Your task to perform on an android device: set the timer Image 0: 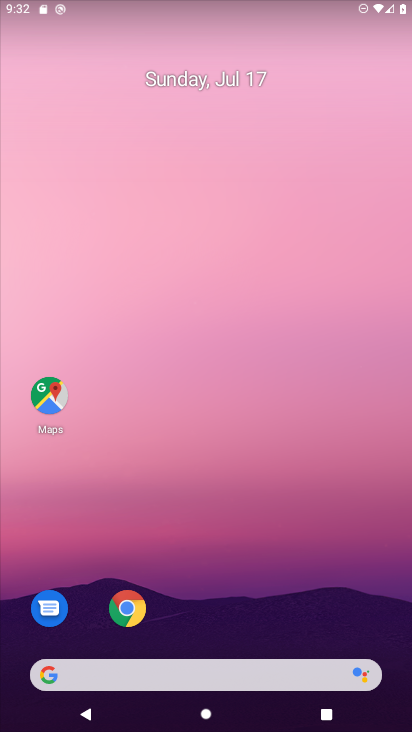
Step 0: drag from (180, 678) to (190, 137)
Your task to perform on an android device: set the timer Image 1: 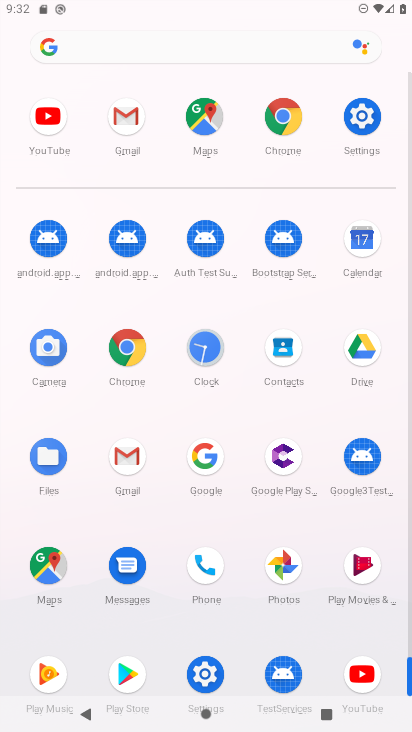
Step 1: click (206, 346)
Your task to perform on an android device: set the timer Image 2: 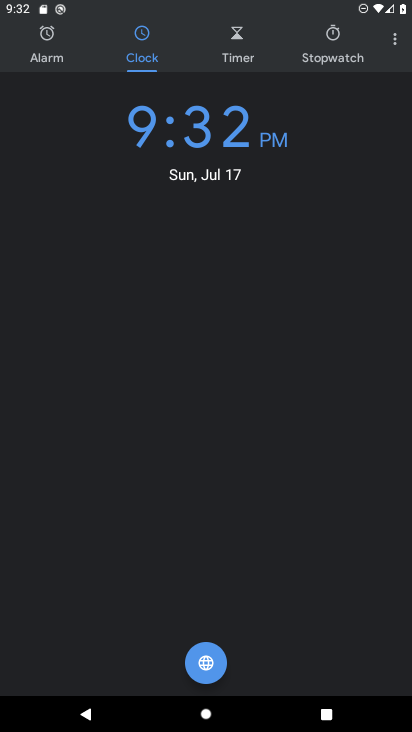
Step 2: click (240, 44)
Your task to perform on an android device: set the timer Image 3: 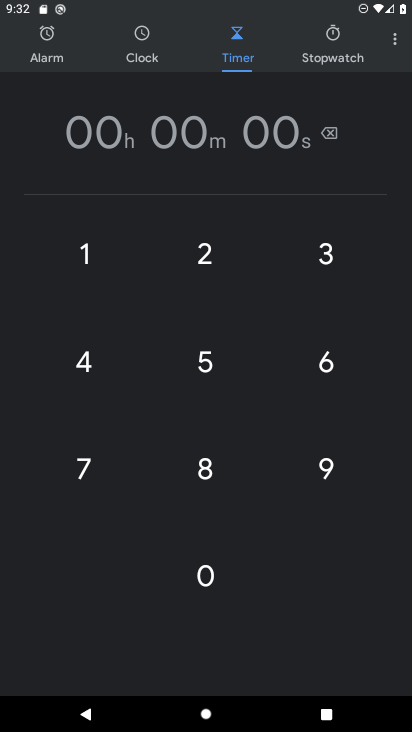
Step 3: type "1357"
Your task to perform on an android device: set the timer Image 4: 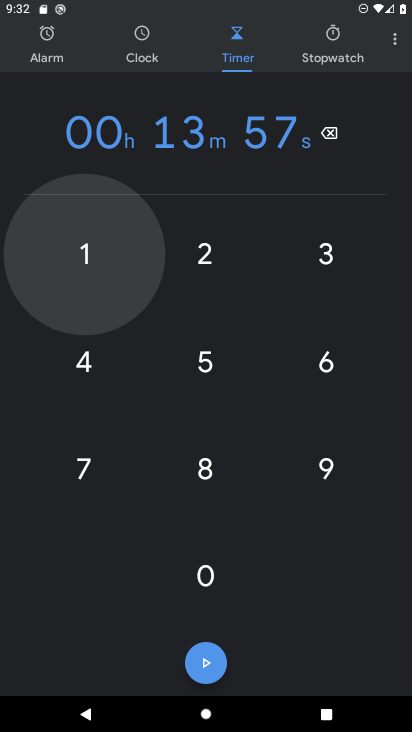
Step 4: click (213, 673)
Your task to perform on an android device: set the timer Image 5: 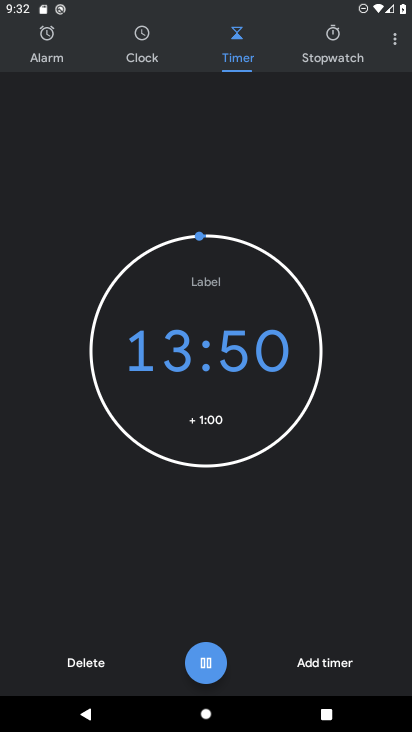
Step 5: click (207, 668)
Your task to perform on an android device: set the timer Image 6: 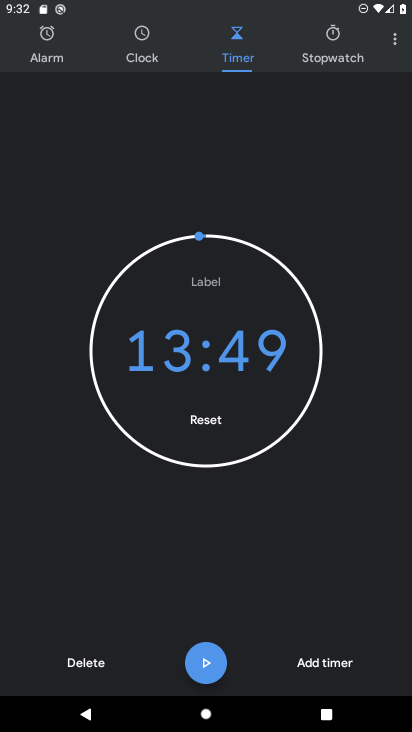
Step 6: task complete